Your task to perform on an android device: delete location history Image 0: 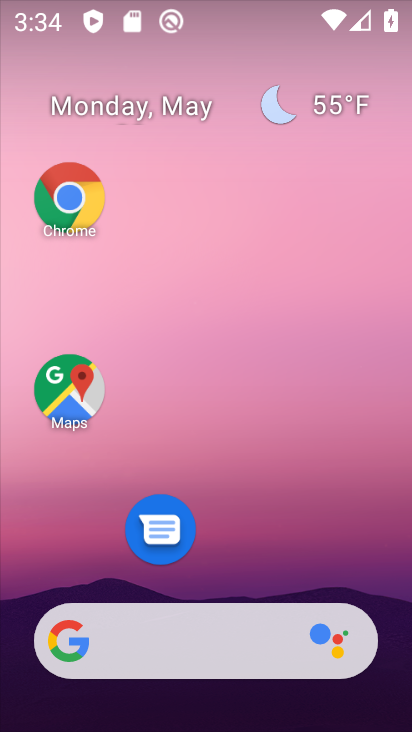
Step 0: drag from (195, 632) to (195, 118)
Your task to perform on an android device: delete location history Image 1: 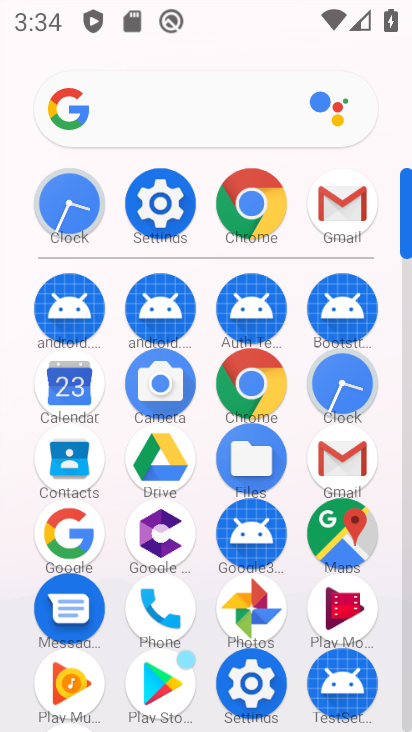
Step 1: click (177, 232)
Your task to perform on an android device: delete location history Image 2: 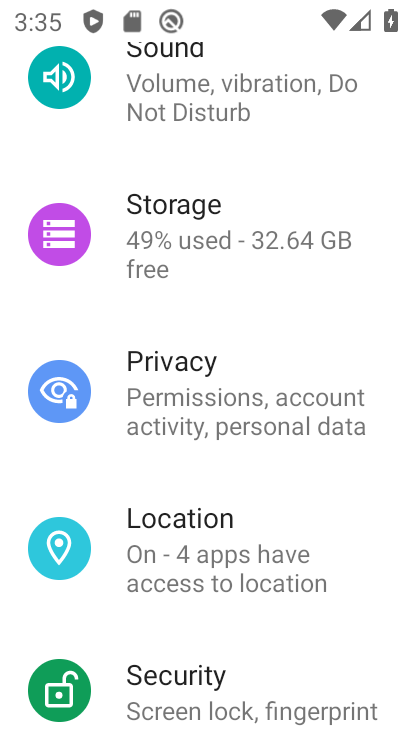
Step 2: click (232, 573)
Your task to perform on an android device: delete location history Image 3: 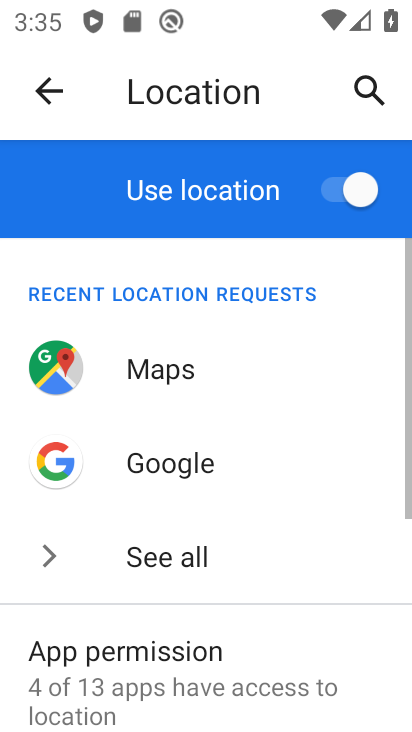
Step 3: drag from (193, 505) to (232, 156)
Your task to perform on an android device: delete location history Image 4: 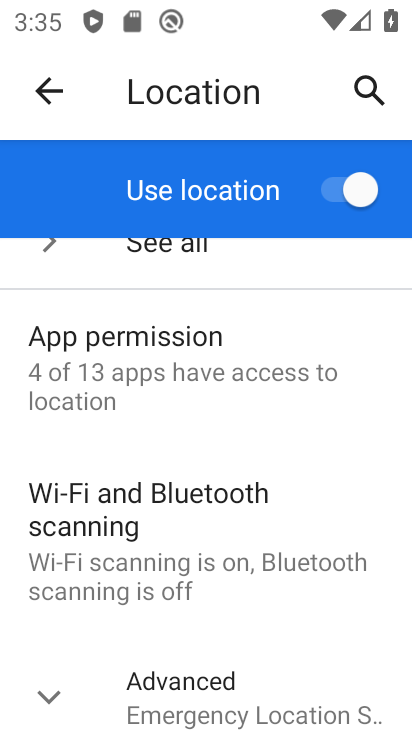
Step 4: click (208, 695)
Your task to perform on an android device: delete location history Image 5: 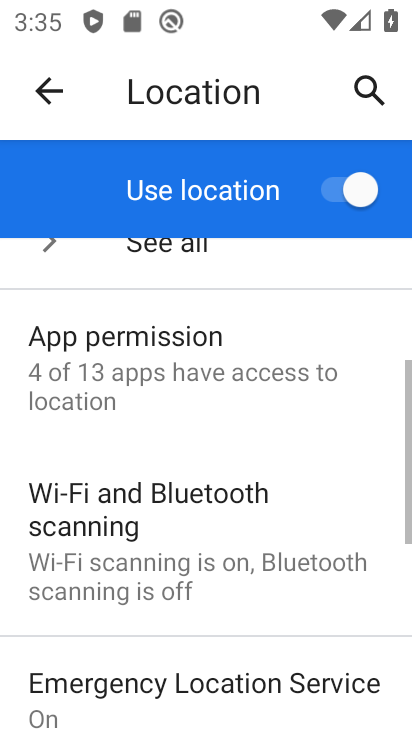
Step 5: drag from (235, 545) to (240, 34)
Your task to perform on an android device: delete location history Image 6: 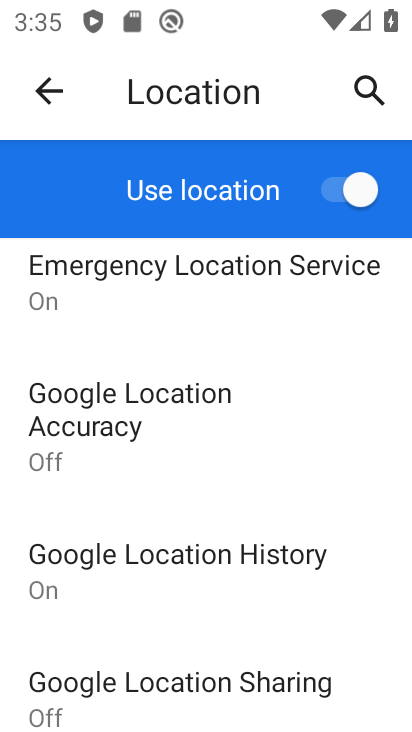
Step 6: click (197, 601)
Your task to perform on an android device: delete location history Image 7: 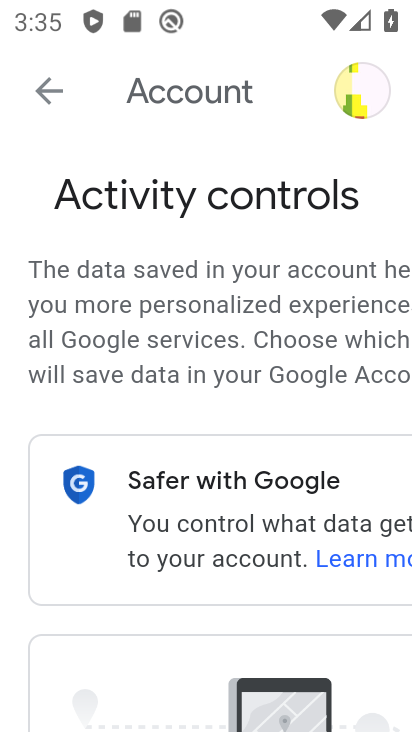
Step 7: drag from (191, 604) to (1, 97)
Your task to perform on an android device: delete location history Image 8: 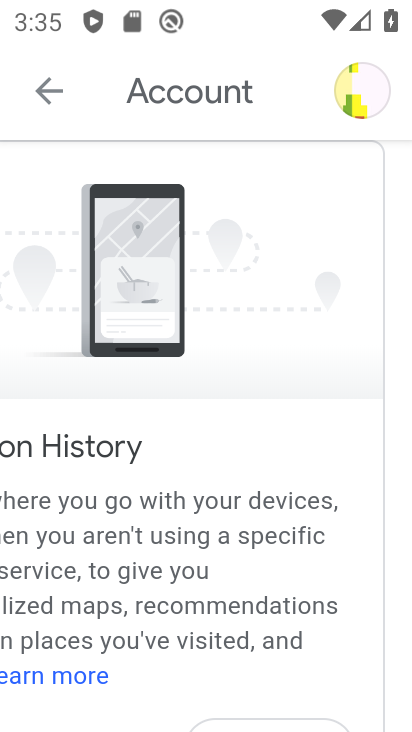
Step 8: drag from (302, 555) to (149, 195)
Your task to perform on an android device: delete location history Image 9: 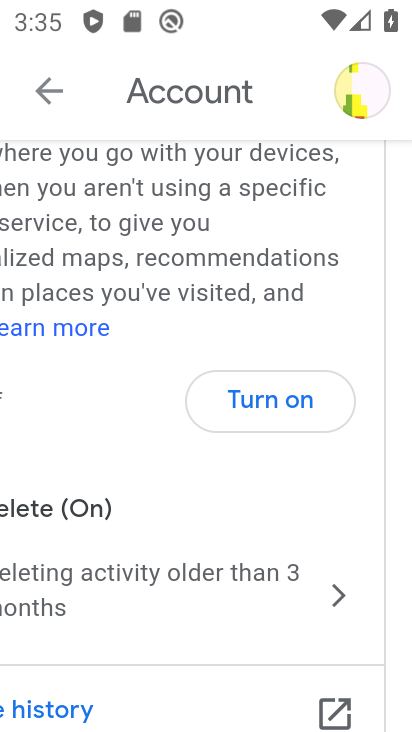
Step 9: click (252, 605)
Your task to perform on an android device: delete location history Image 10: 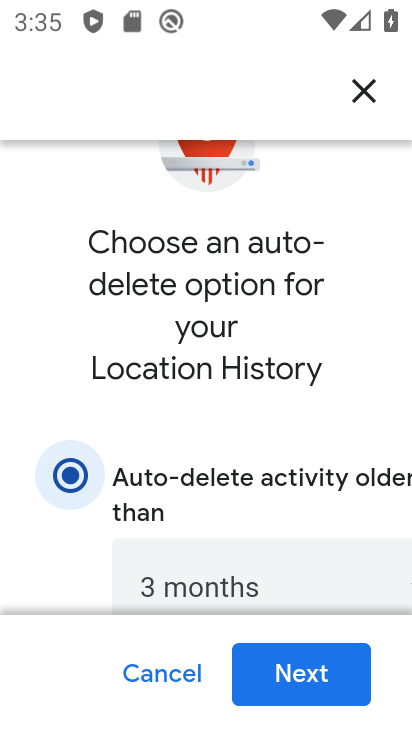
Step 10: click (302, 672)
Your task to perform on an android device: delete location history Image 11: 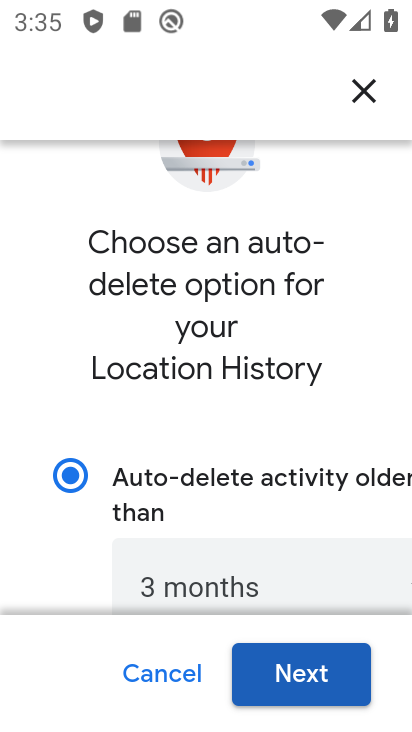
Step 11: drag from (273, 487) to (161, 21)
Your task to perform on an android device: delete location history Image 12: 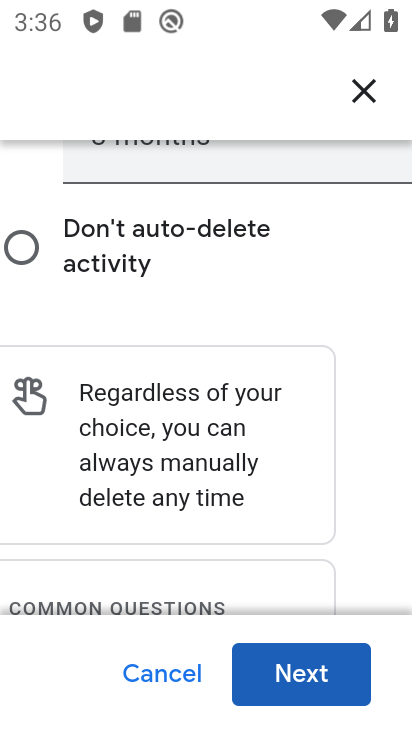
Step 12: click (341, 686)
Your task to perform on an android device: delete location history Image 13: 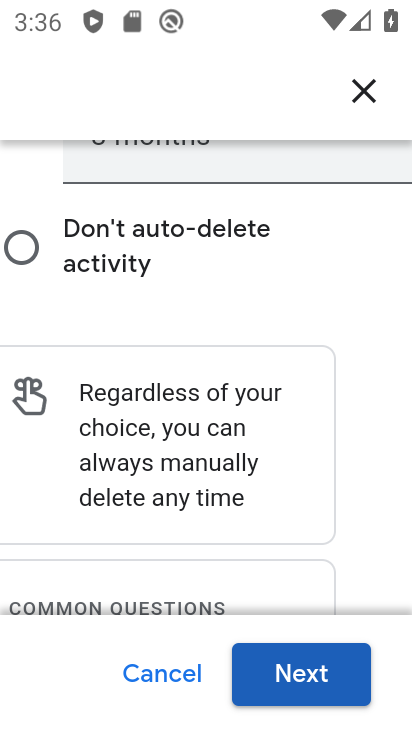
Step 13: click (341, 688)
Your task to perform on an android device: delete location history Image 14: 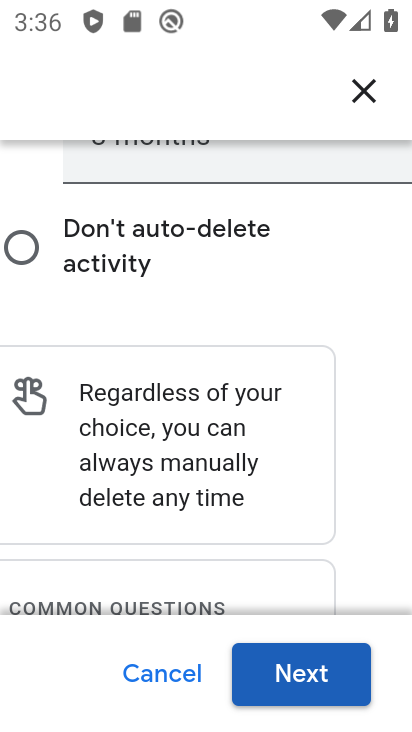
Step 14: click (354, 682)
Your task to perform on an android device: delete location history Image 15: 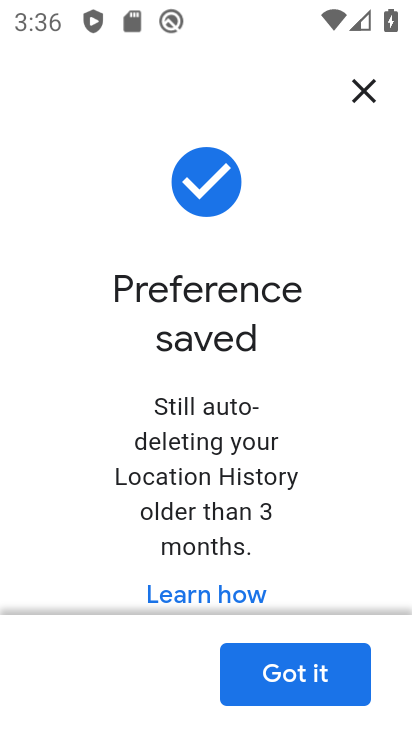
Step 15: click (351, 677)
Your task to perform on an android device: delete location history Image 16: 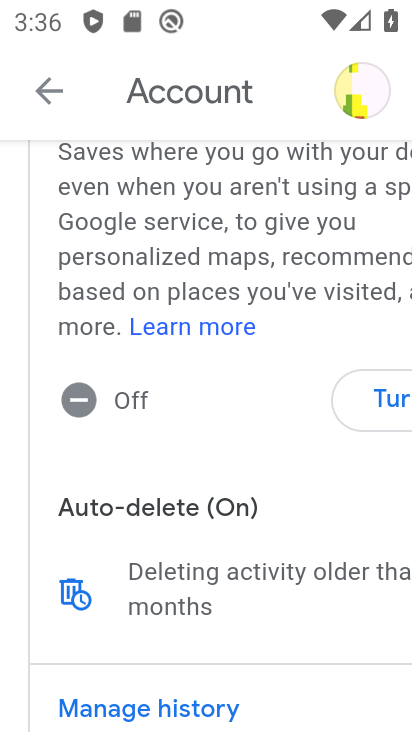
Step 16: task complete